Your task to perform on an android device: add a contact Image 0: 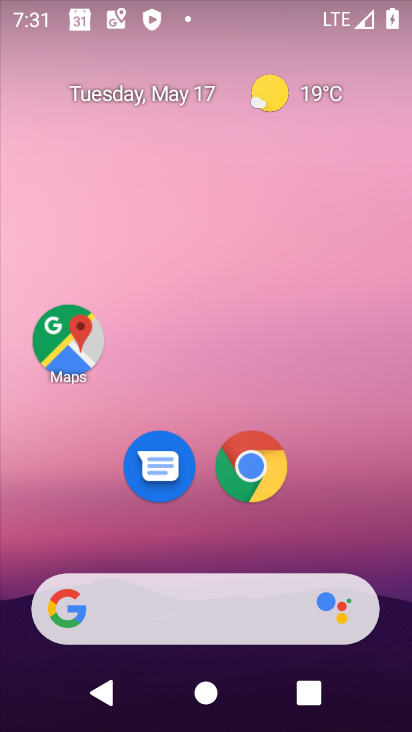
Step 0: press home button
Your task to perform on an android device: add a contact Image 1: 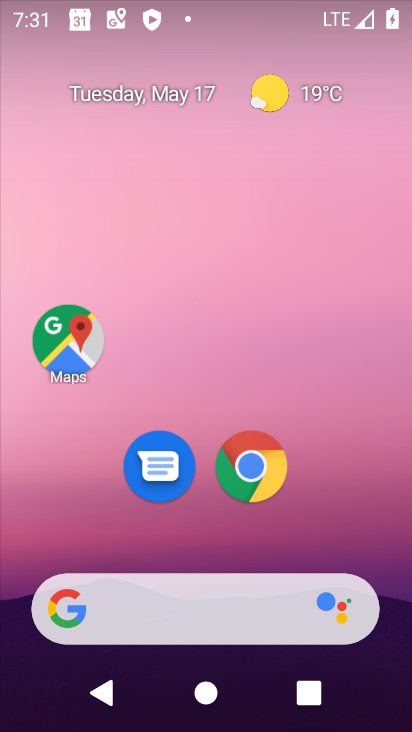
Step 1: drag from (201, 584) to (353, 120)
Your task to perform on an android device: add a contact Image 2: 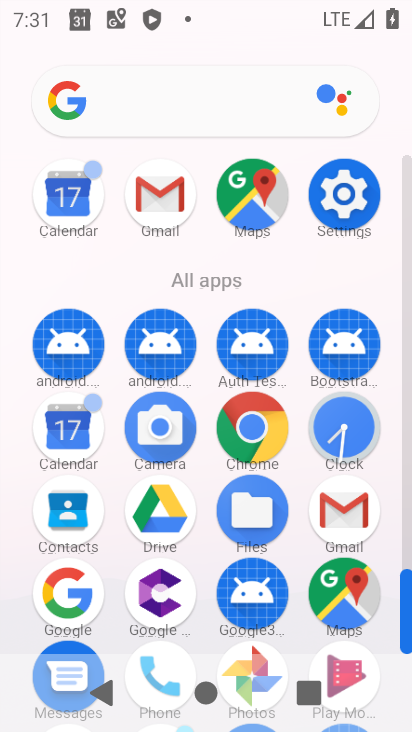
Step 2: click (73, 511)
Your task to perform on an android device: add a contact Image 3: 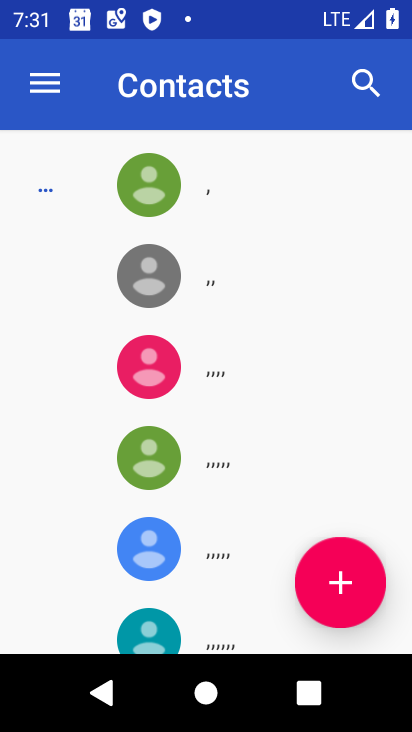
Step 3: click (335, 577)
Your task to perform on an android device: add a contact Image 4: 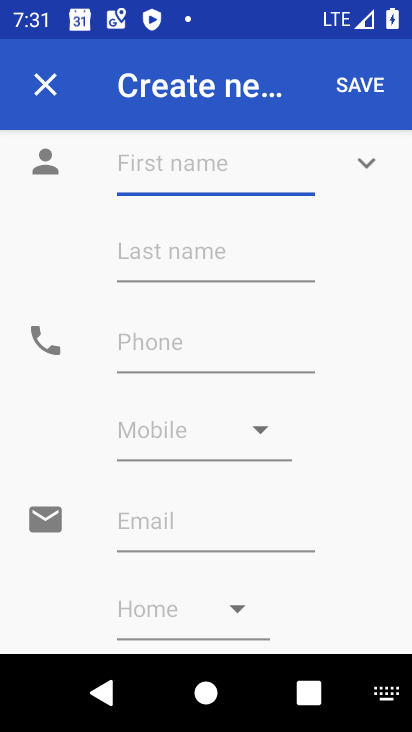
Step 4: type "qsdewwa"
Your task to perform on an android device: add a contact Image 5: 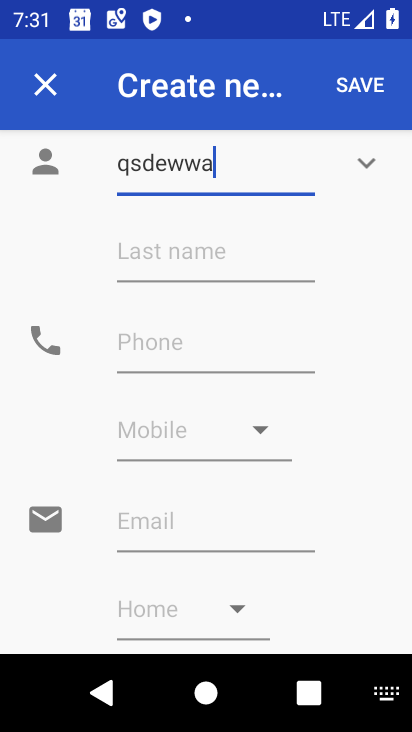
Step 5: click (204, 346)
Your task to perform on an android device: add a contact Image 6: 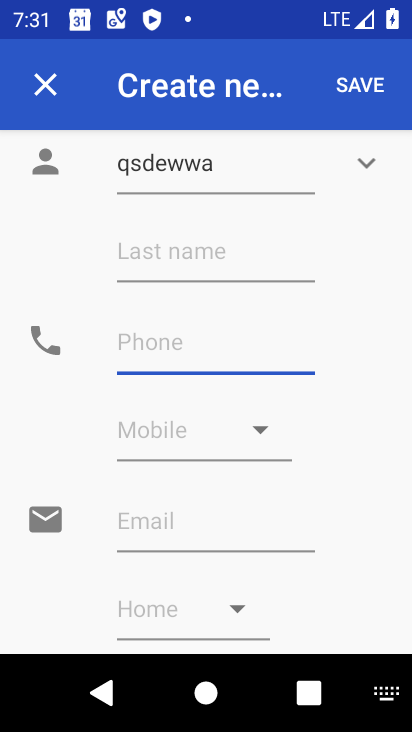
Step 6: type "766554887"
Your task to perform on an android device: add a contact Image 7: 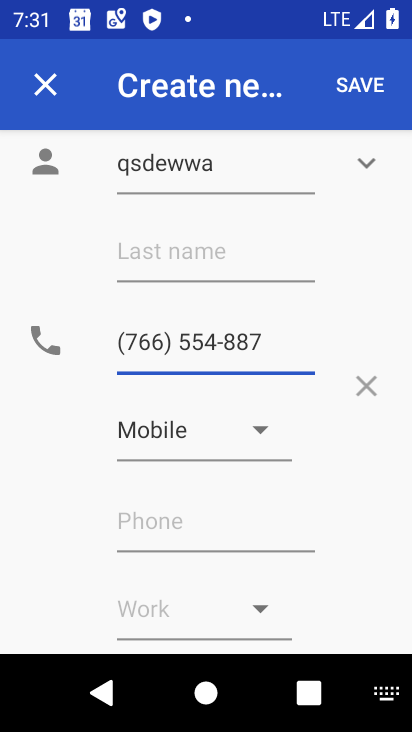
Step 7: click (373, 85)
Your task to perform on an android device: add a contact Image 8: 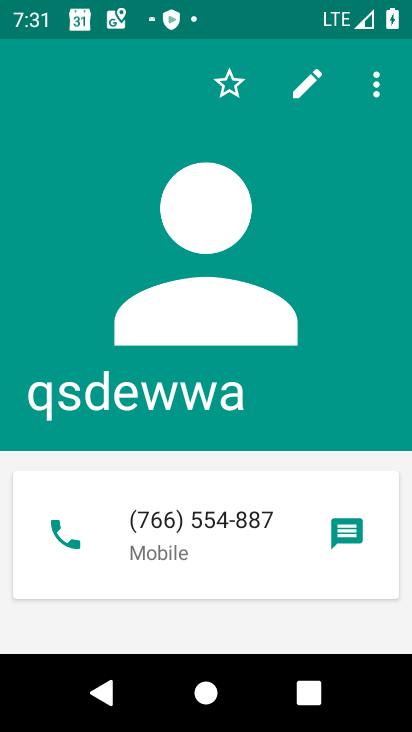
Step 8: task complete